Your task to perform on an android device: Do I have any events today? Image 0: 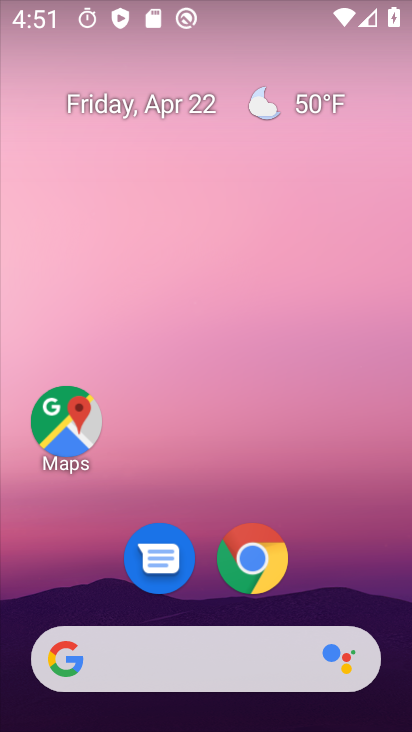
Step 0: drag from (326, 570) to (286, 201)
Your task to perform on an android device: Do I have any events today? Image 1: 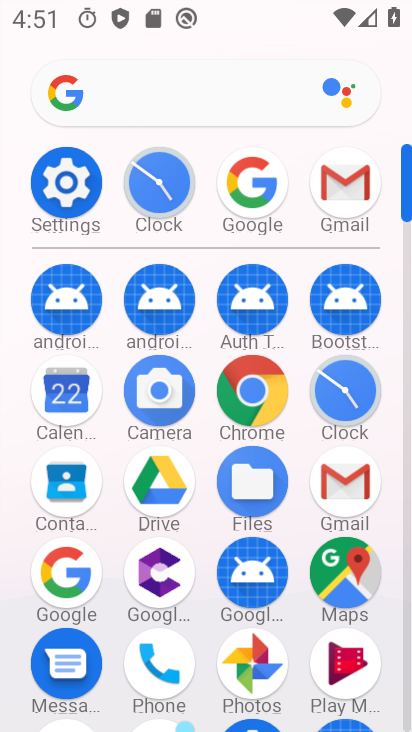
Step 1: drag from (351, 586) to (24, 354)
Your task to perform on an android device: Do I have any events today? Image 2: 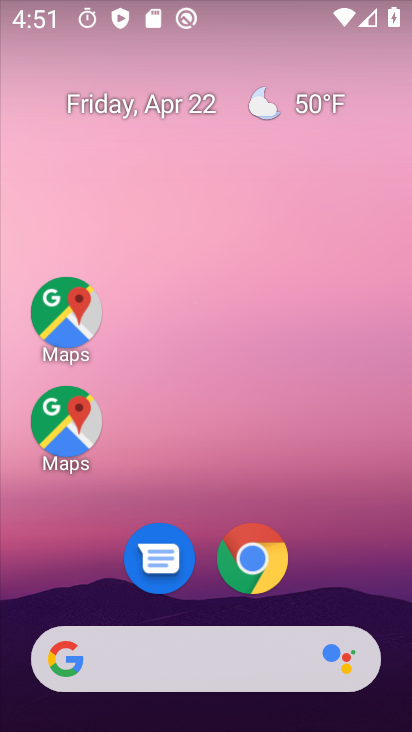
Step 2: drag from (304, 589) to (320, 159)
Your task to perform on an android device: Do I have any events today? Image 3: 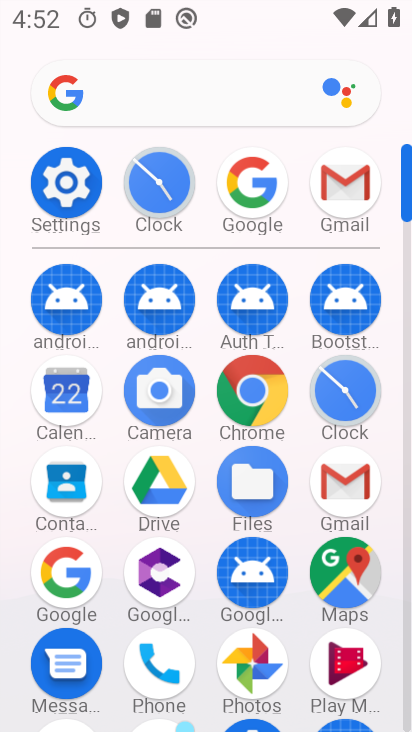
Step 3: click (52, 410)
Your task to perform on an android device: Do I have any events today? Image 4: 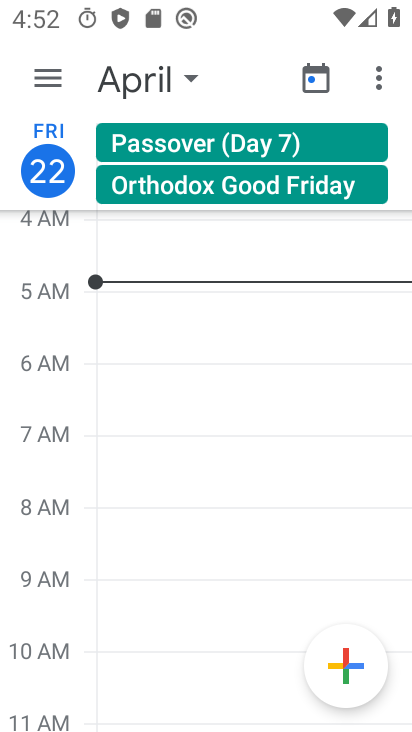
Step 4: click (153, 76)
Your task to perform on an android device: Do I have any events today? Image 5: 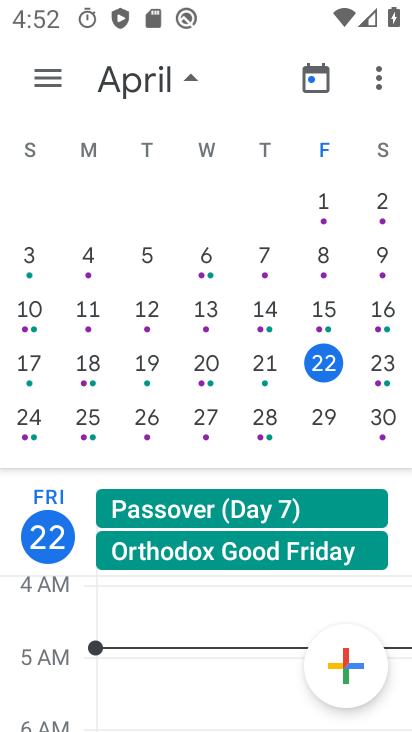
Step 5: task complete